Your task to perform on an android device: turn off sleep mode Image 0: 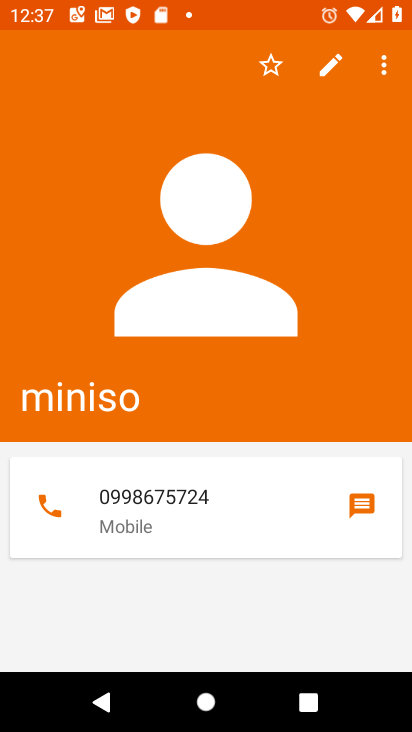
Step 0: press home button
Your task to perform on an android device: turn off sleep mode Image 1: 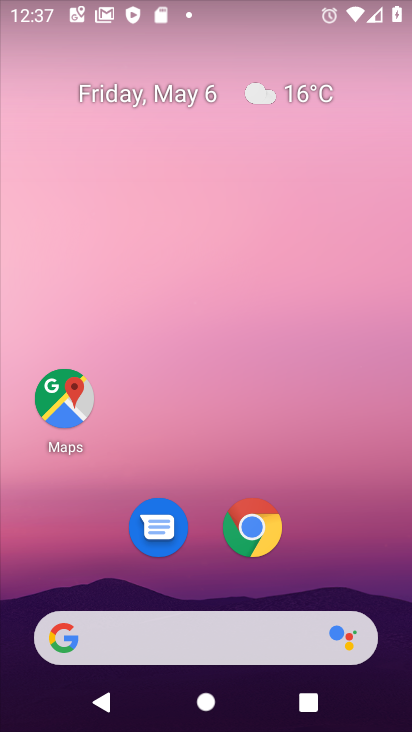
Step 1: drag from (324, 547) to (61, 87)
Your task to perform on an android device: turn off sleep mode Image 2: 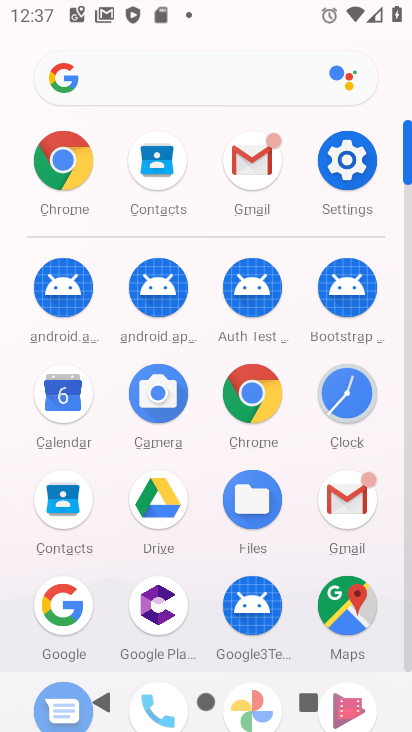
Step 2: click (349, 156)
Your task to perform on an android device: turn off sleep mode Image 3: 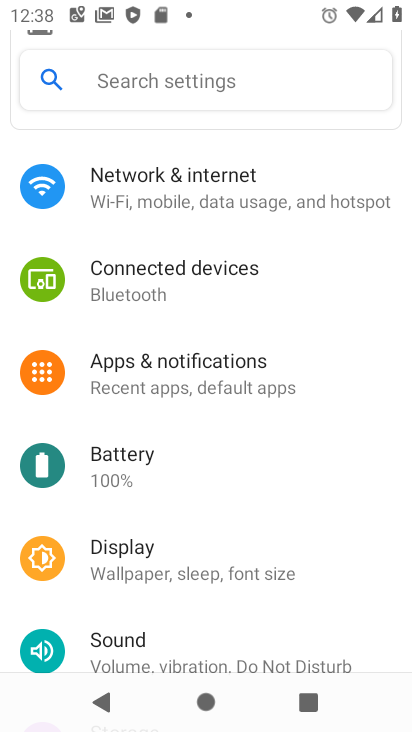
Step 3: click (205, 574)
Your task to perform on an android device: turn off sleep mode Image 4: 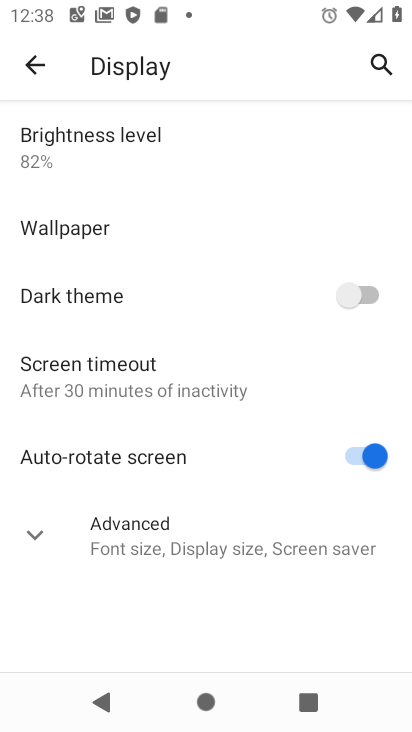
Step 4: click (177, 537)
Your task to perform on an android device: turn off sleep mode Image 5: 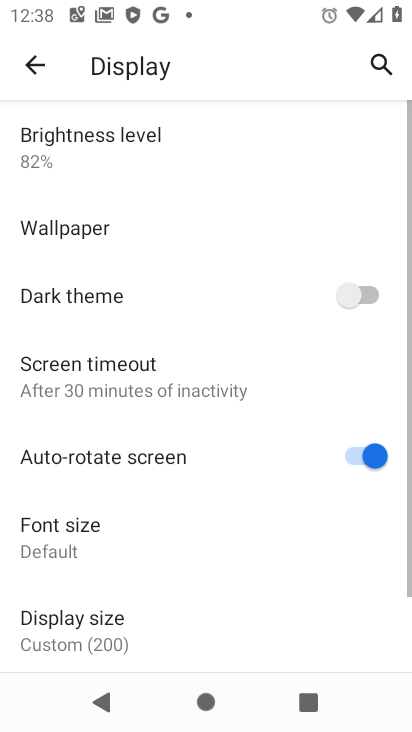
Step 5: task complete